Your task to perform on an android device: Open calendar and show me the second week of next month Image 0: 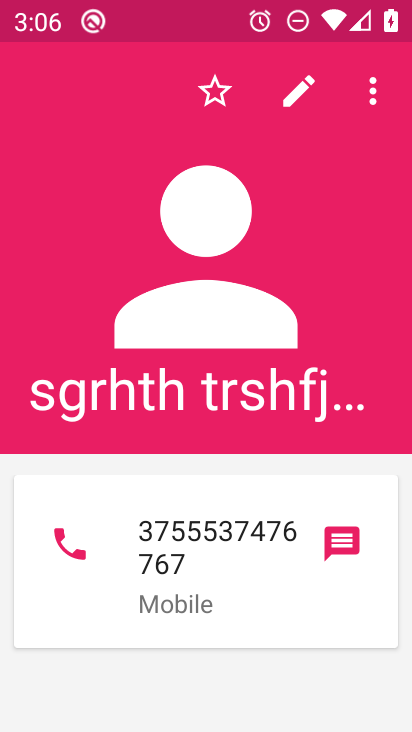
Step 0: press home button
Your task to perform on an android device: Open calendar and show me the second week of next month Image 1: 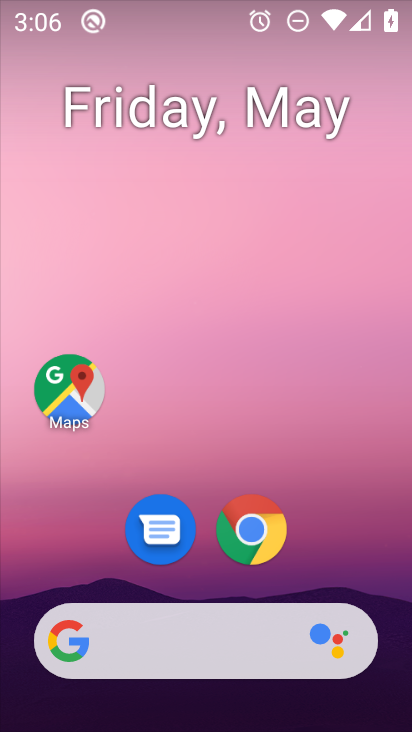
Step 1: click (381, 291)
Your task to perform on an android device: Open calendar and show me the second week of next month Image 2: 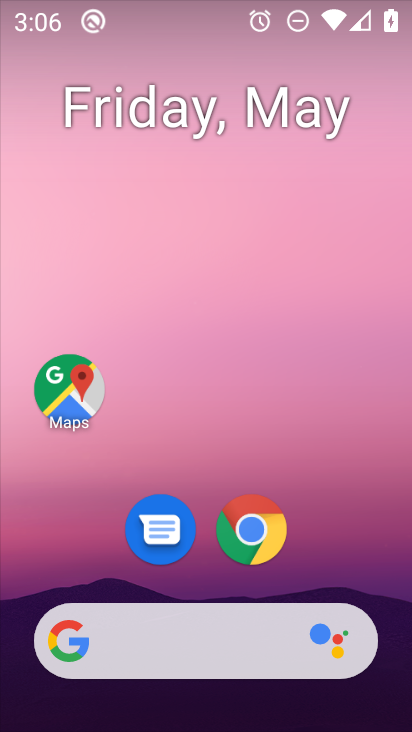
Step 2: drag from (392, 706) to (354, 286)
Your task to perform on an android device: Open calendar and show me the second week of next month Image 3: 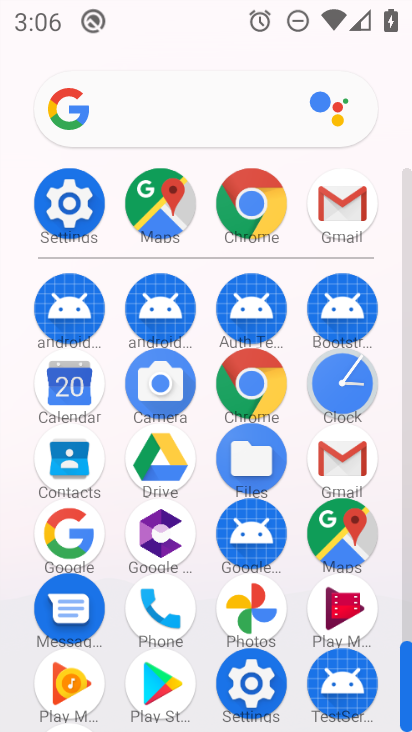
Step 3: click (65, 394)
Your task to perform on an android device: Open calendar and show me the second week of next month Image 4: 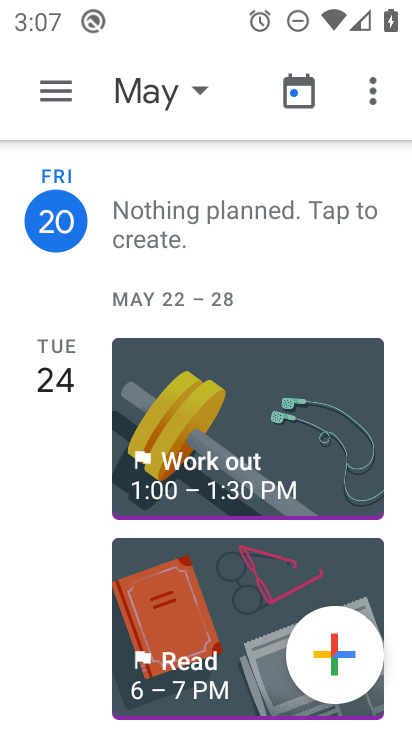
Step 4: click (370, 86)
Your task to perform on an android device: Open calendar and show me the second week of next month Image 5: 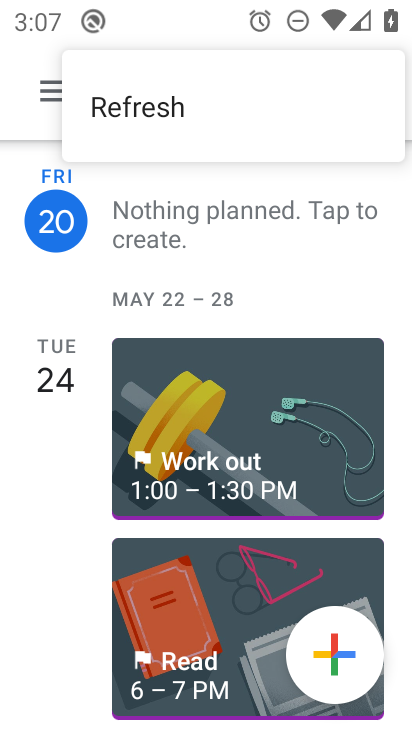
Step 5: click (336, 181)
Your task to perform on an android device: Open calendar and show me the second week of next month Image 6: 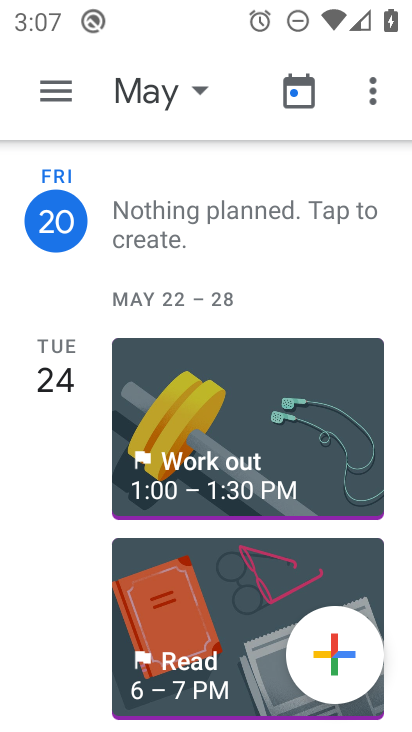
Step 6: click (194, 83)
Your task to perform on an android device: Open calendar and show me the second week of next month Image 7: 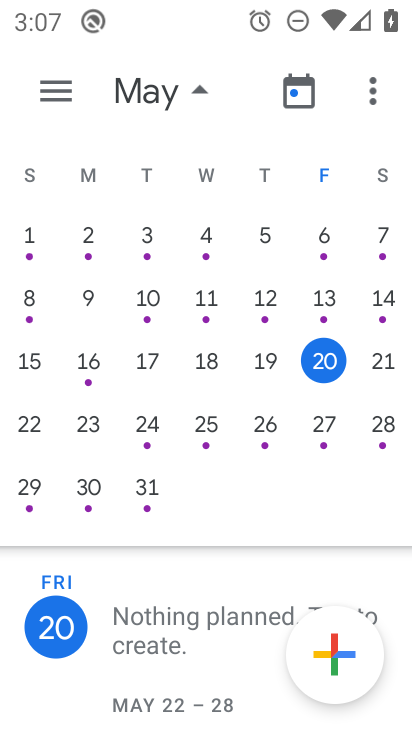
Step 7: drag from (399, 273) to (12, 331)
Your task to perform on an android device: Open calendar and show me the second week of next month Image 8: 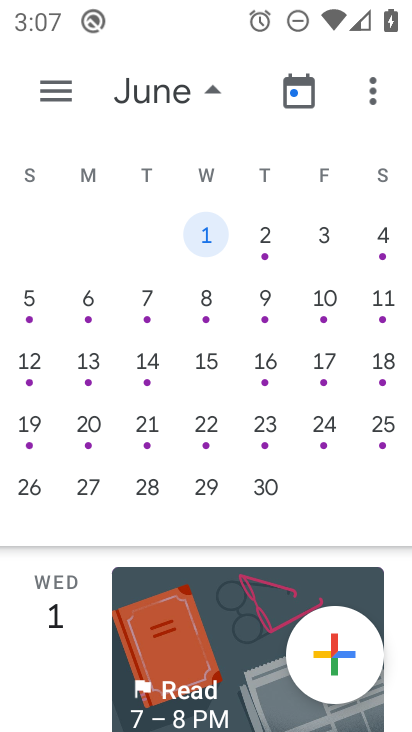
Step 8: click (266, 295)
Your task to perform on an android device: Open calendar and show me the second week of next month Image 9: 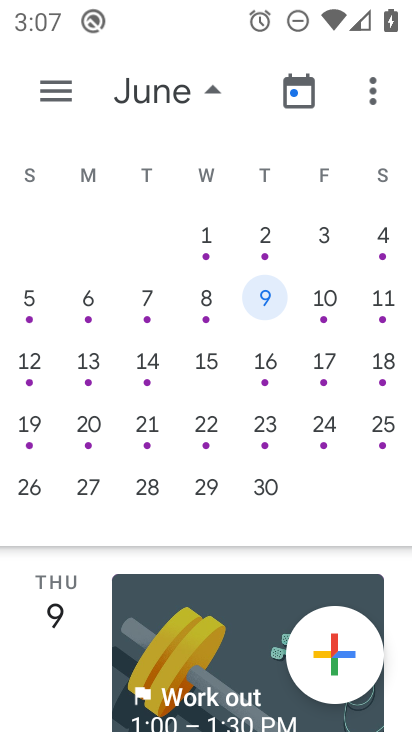
Step 9: task complete